Your task to perform on an android device: turn on the 24-hour format for clock Image 0: 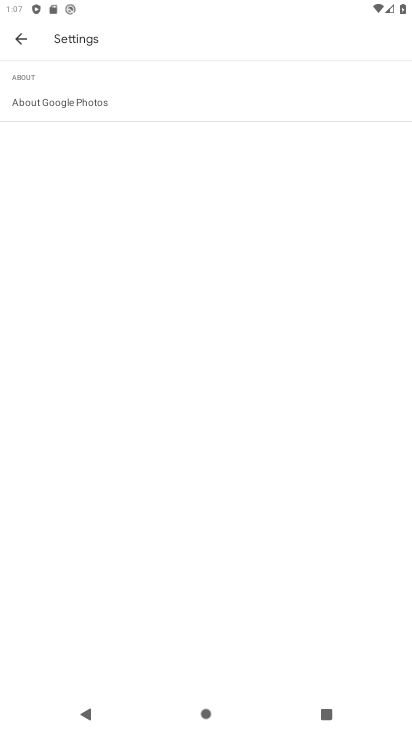
Step 0: press home button
Your task to perform on an android device: turn on the 24-hour format for clock Image 1: 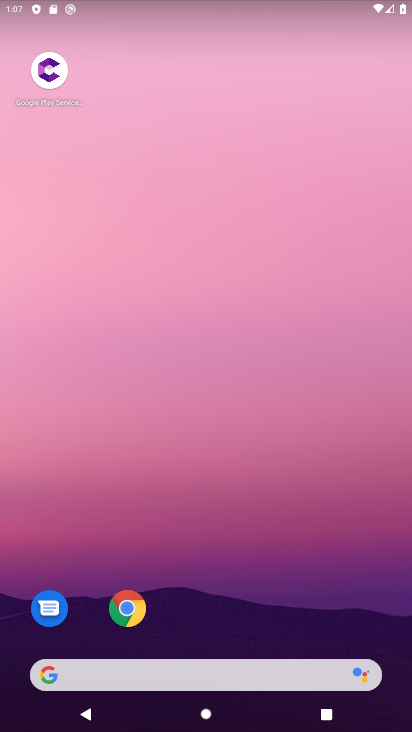
Step 1: drag from (262, 509) to (261, 230)
Your task to perform on an android device: turn on the 24-hour format for clock Image 2: 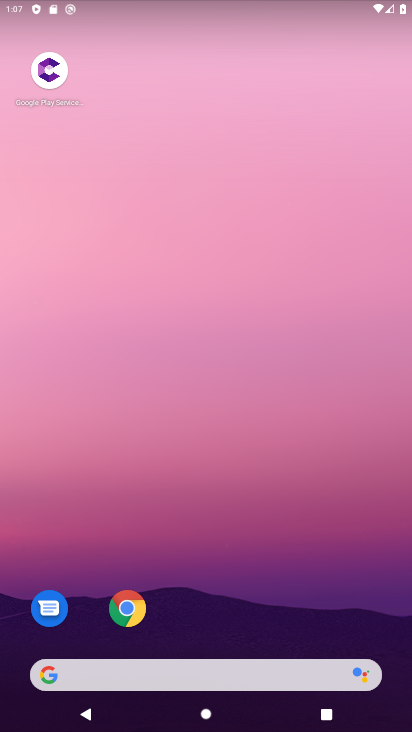
Step 2: drag from (202, 596) to (262, 170)
Your task to perform on an android device: turn on the 24-hour format for clock Image 3: 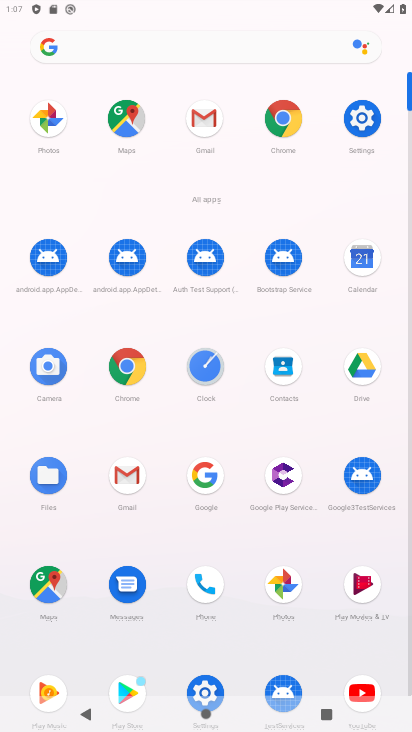
Step 3: click (203, 363)
Your task to perform on an android device: turn on the 24-hour format for clock Image 4: 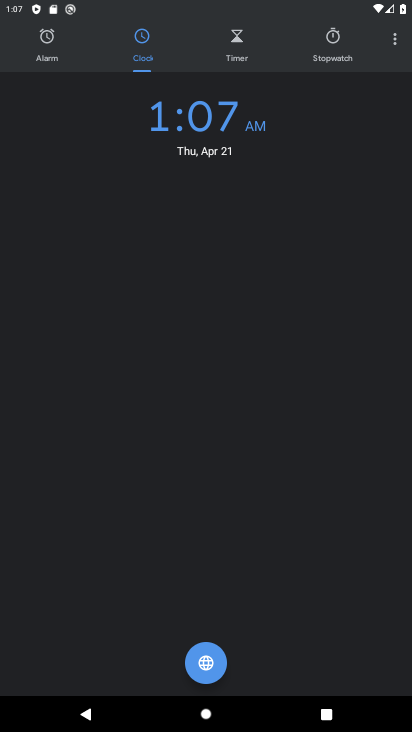
Step 4: click (394, 35)
Your task to perform on an android device: turn on the 24-hour format for clock Image 5: 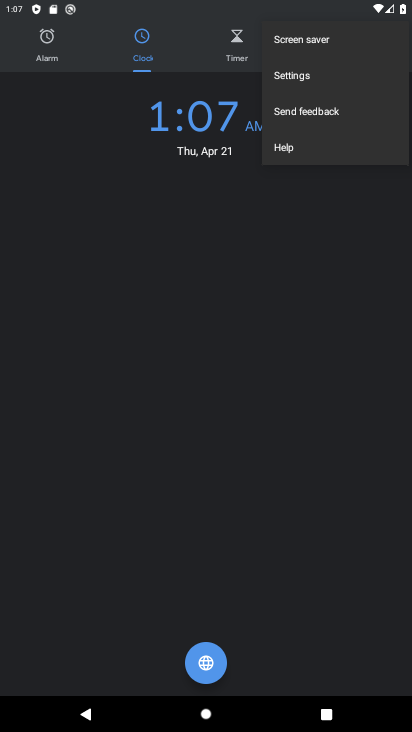
Step 5: click (326, 70)
Your task to perform on an android device: turn on the 24-hour format for clock Image 6: 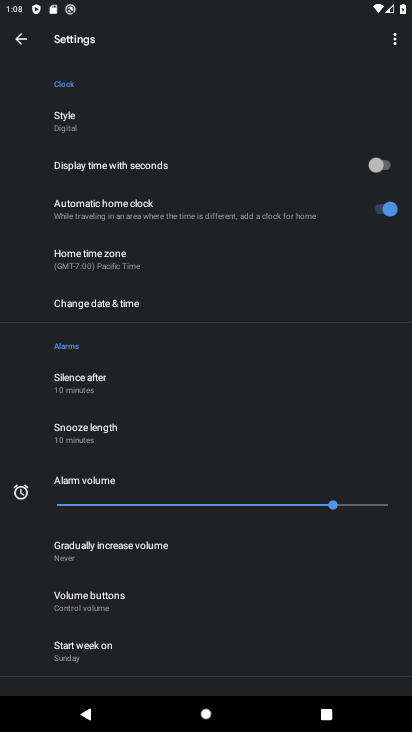
Step 6: click (126, 305)
Your task to perform on an android device: turn on the 24-hour format for clock Image 7: 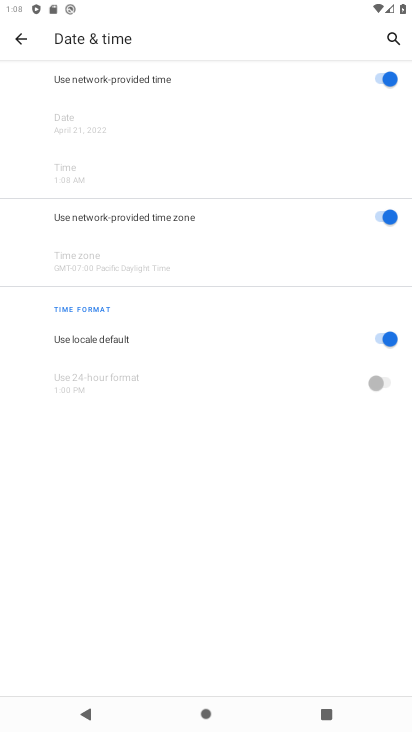
Step 7: click (405, 329)
Your task to perform on an android device: turn on the 24-hour format for clock Image 8: 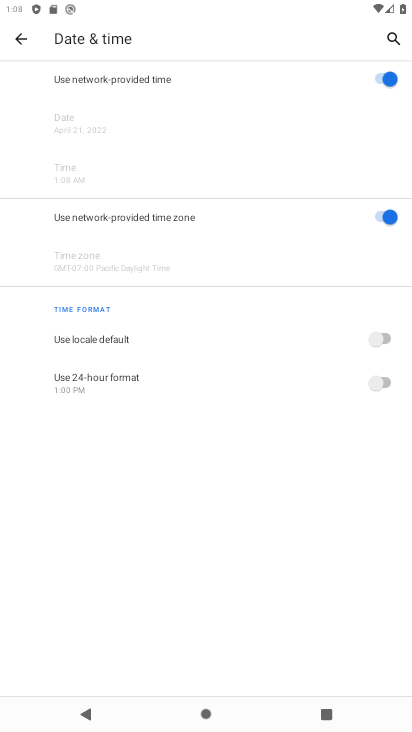
Step 8: click (381, 375)
Your task to perform on an android device: turn on the 24-hour format for clock Image 9: 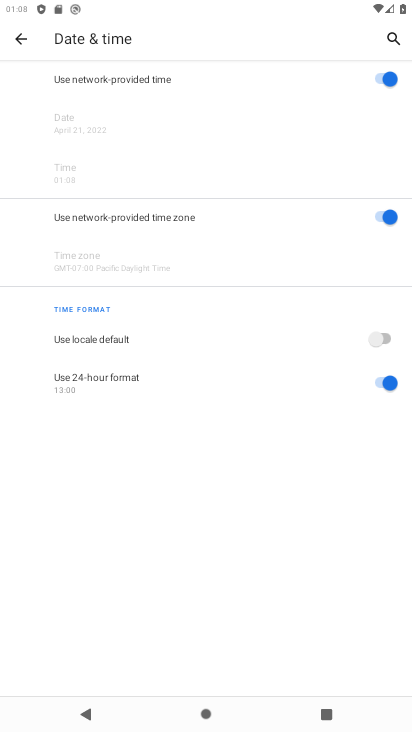
Step 9: task complete